Your task to perform on an android device: delete a single message in the gmail app Image 0: 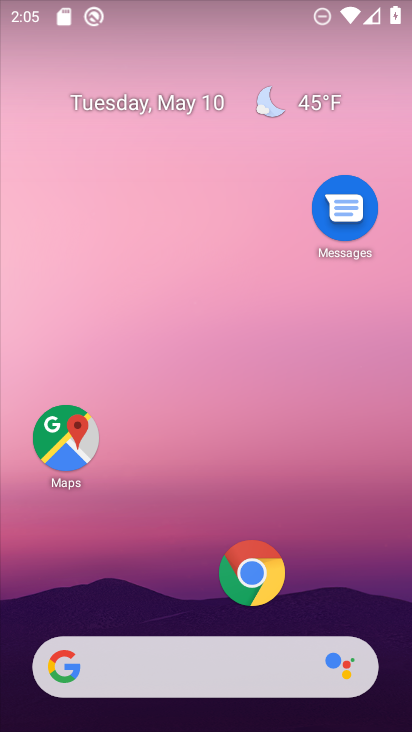
Step 0: drag from (198, 619) to (209, 321)
Your task to perform on an android device: delete a single message in the gmail app Image 1: 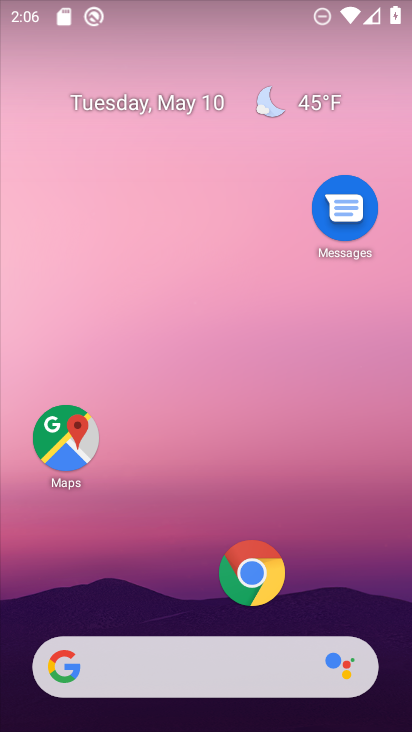
Step 1: drag from (193, 617) to (177, 266)
Your task to perform on an android device: delete a single message in the gmail app Image 2: 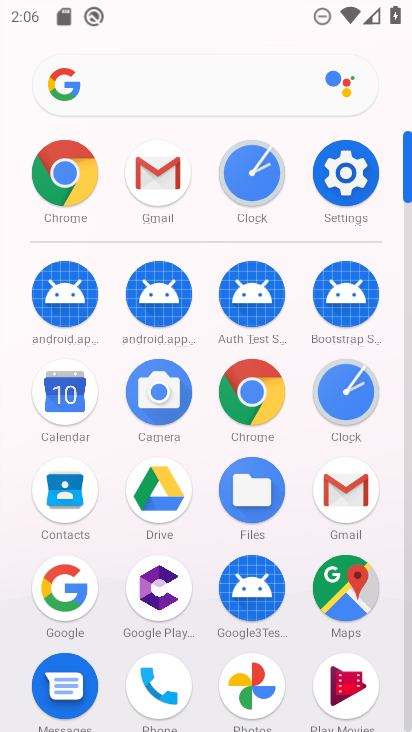
Step 2: click (343, 495)
Your task to perform on an android device: delete a single message in the gmail app Image 3: 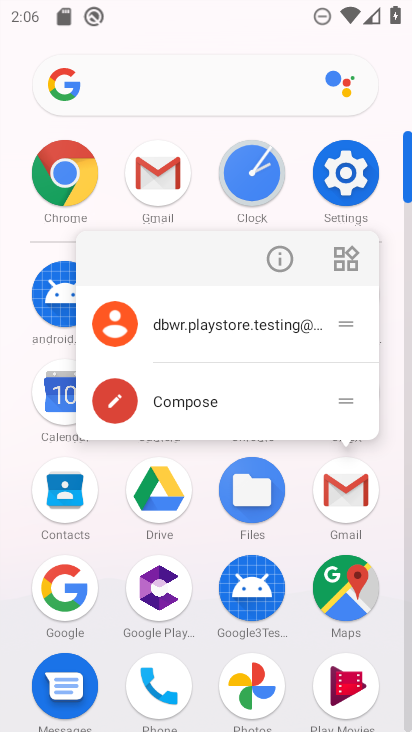
Step 3: click (278, 257)
Your task to perform on an android device: delete a single message in the gmail app Image 4: 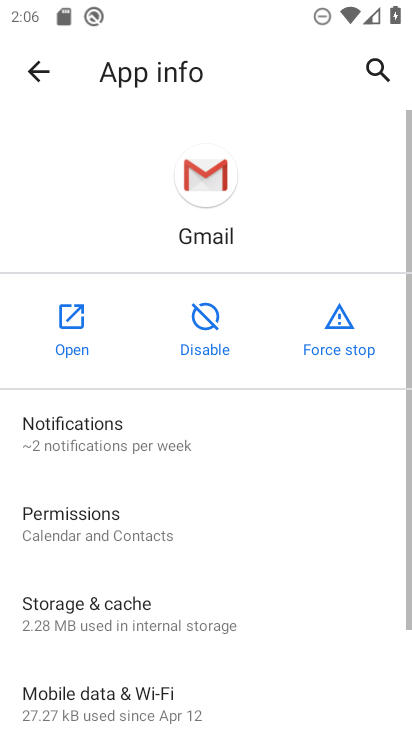
Step 4: click (51, 326)
Your task to perform on an android device: delete a single message in the gmail app Image 5: 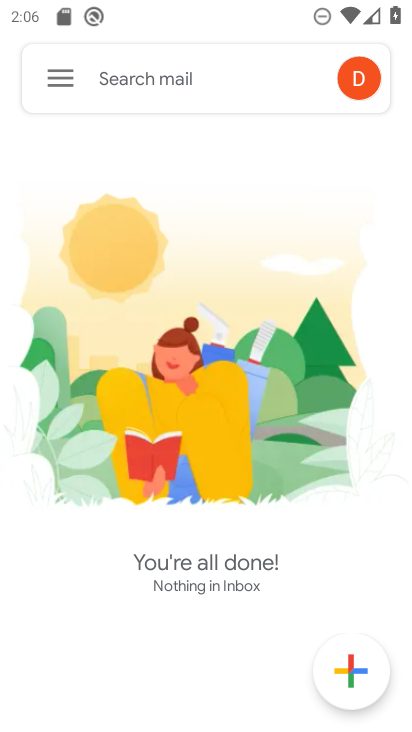
Step 5: click (49, 65)
Your task to perform on an android device: delete a single message in the gmail app Image 6: 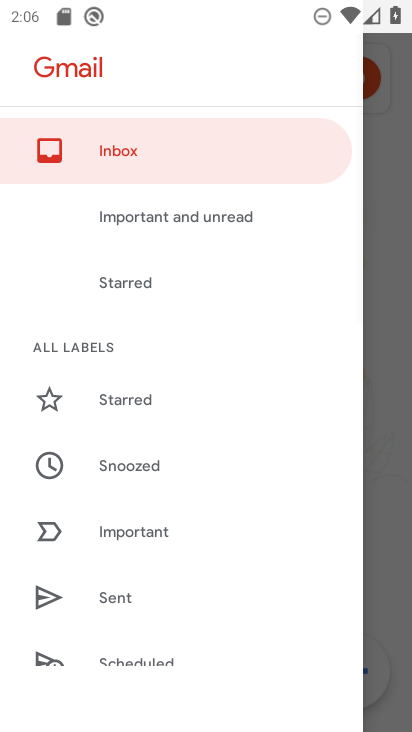
Step 6: drag from (129, 607) to (179, 245)
Your task to perform on an android device: delete a single message in the gmail app Image 7: 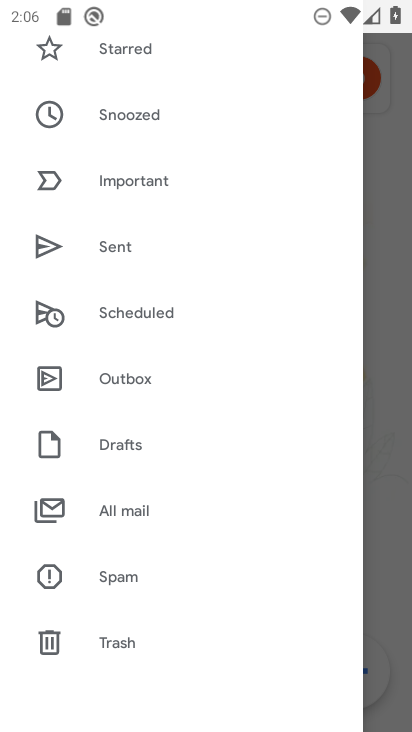
Step 7: drag from (162, 619) to (169, 196)
Your task to perform on an android device: delete a single message in the gmail app Image 8: 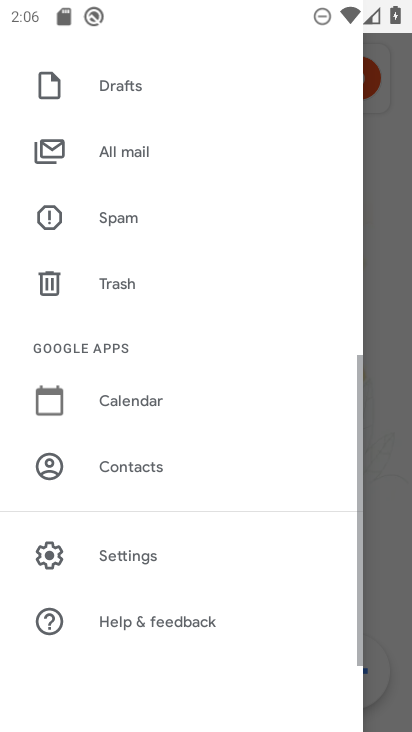
Step 8: drag from (170, 181) to (169, 718)
Your task to perform on an android device: delete a single message in the gmail app Image 9: 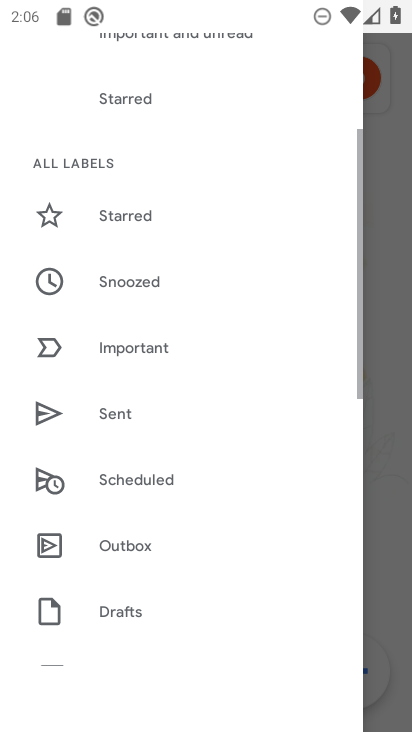
Step 9: drag from (176, 254) to (216, 725)
Your task to perform on an android device: delete a single message in the gmail app Image 10: 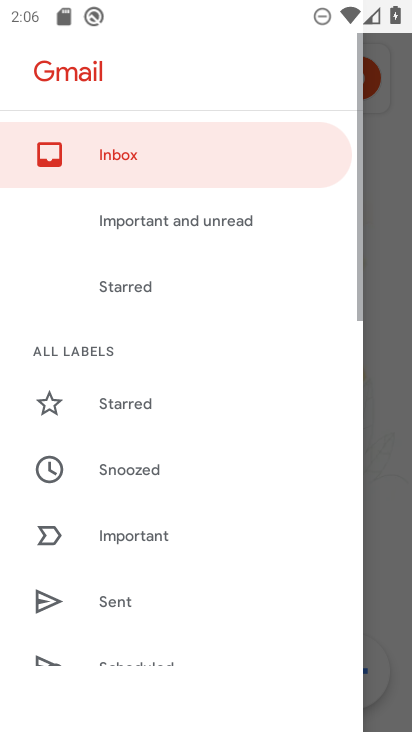
Step 10: click (188, 160)
Your task to perform on an android device: delete a single message in the gmail app Image 11: 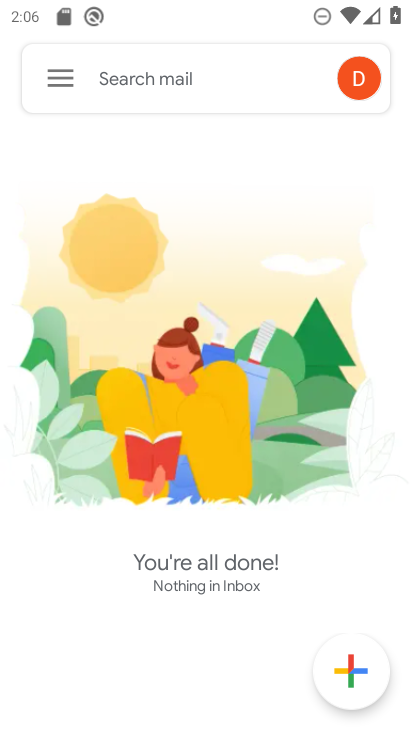
Step 11: drag from (194, 584) to (206, 307)
Your task to perform on an android device: delete a single message in the gmail app Image 12: 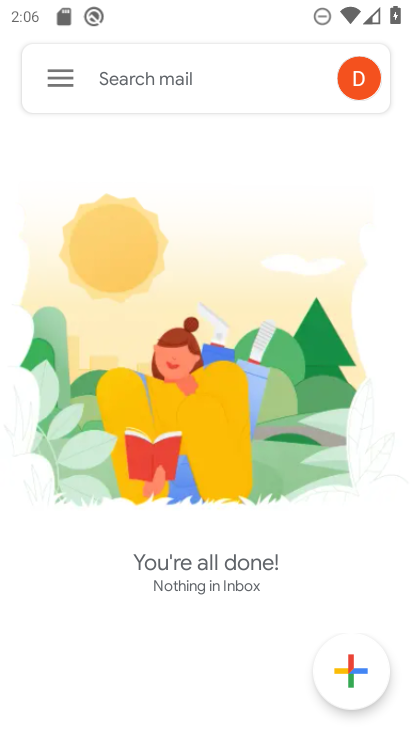
Step 12: drag from (185, 602) to (228, 340)
Your task to perform on an android device: delete a single message in the gmail app Image 13: 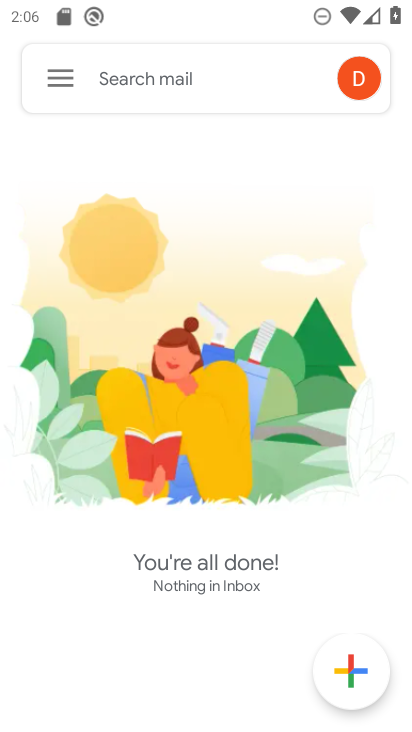
Step 13: drag from (248, 600) to (234, 369)
Your task to perform on an android device: delete a single message in the gmail app Image 14: 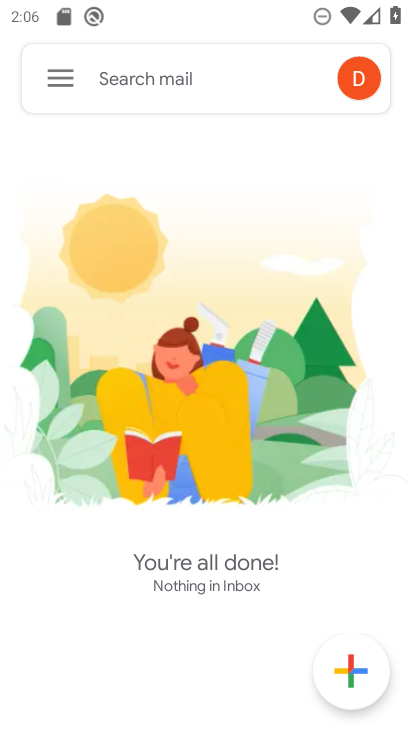
Step 14: drag from (196, 586) to (200, 236)
Your task to perform on an android device: delete a single message in the gmail app Image 15: 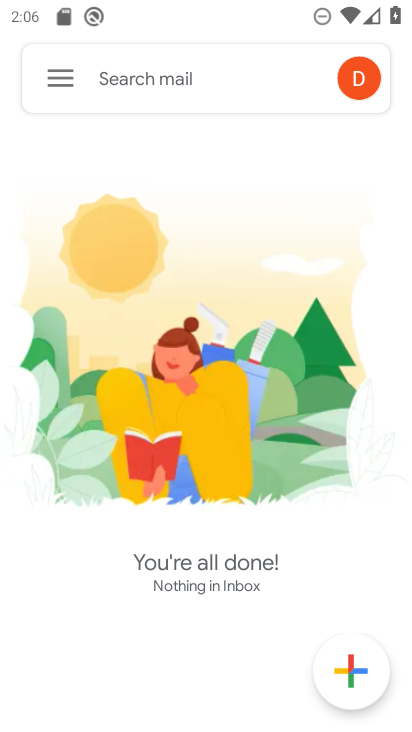
Step 15: click (58, 83)
Your task to perform on an android device: delete a single message in the gmail app Image 16: 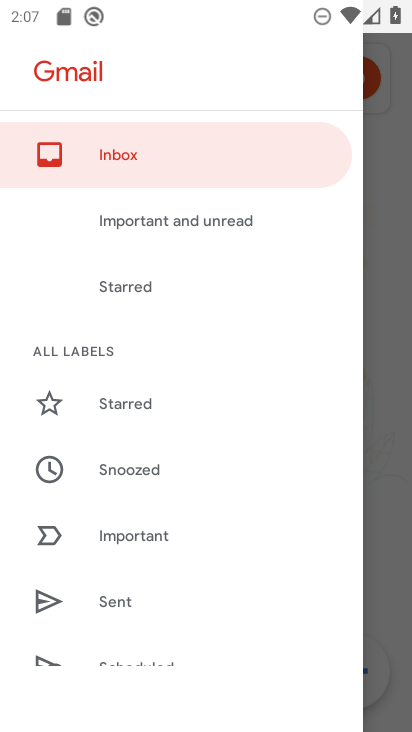
Step 16: task complete